Your task to perform on an android device: turn pop-ups off in chrome Image 0: 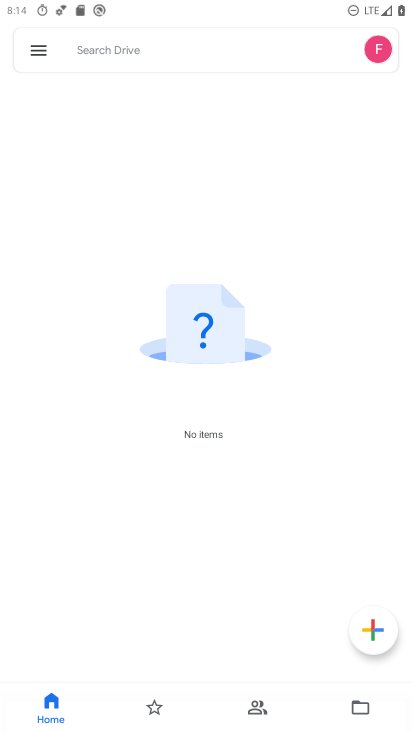
Step 0: press home button
Your task to perform on an android device: turn pop-ups off in chrome Image 1: 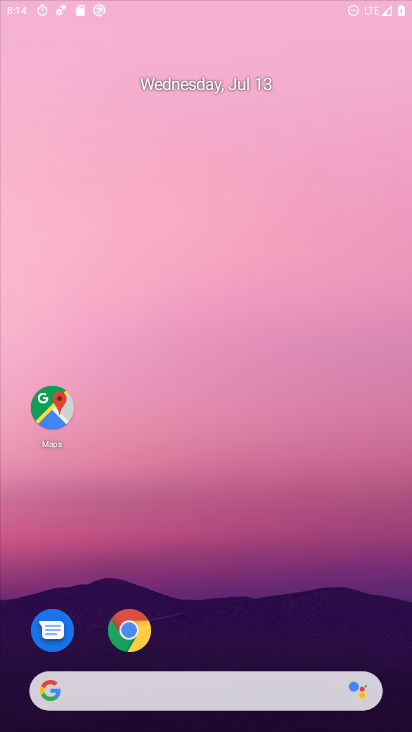
Step 1: drag from (394, 696) to (207, 4)
Your task to perform on an android device: turn pop-ups off in chrome Image 2: 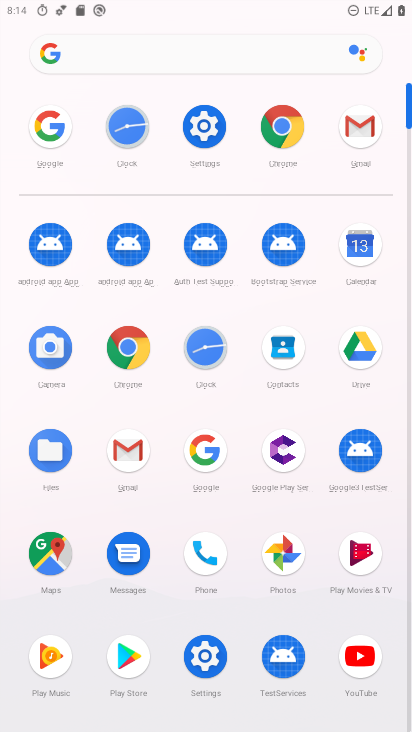
Step 2: click (283, 129)
Your task to perform on an android device: turn pop-ups off in chrome Image 3: 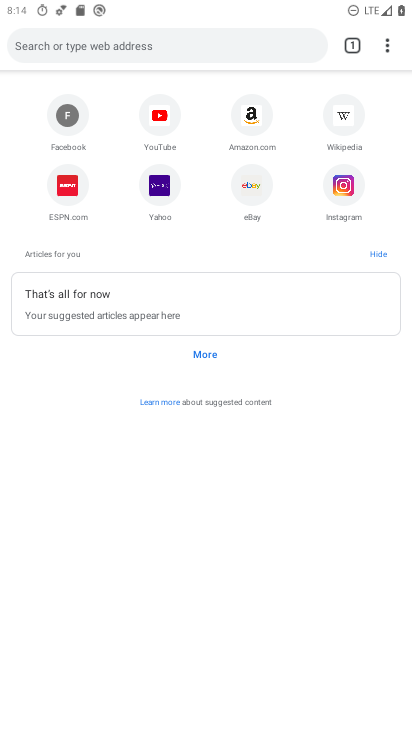
Step 3: click (386, 42)
Your task to perform on an android device: turn pop-ups off in chrome Image 4: 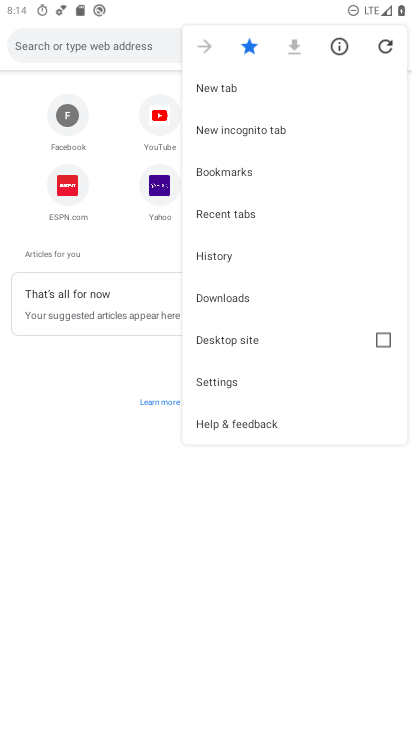
Step 4: click (220, 382)
Your task to perform on an android device: turn pop-ups off in chrome Image 5: 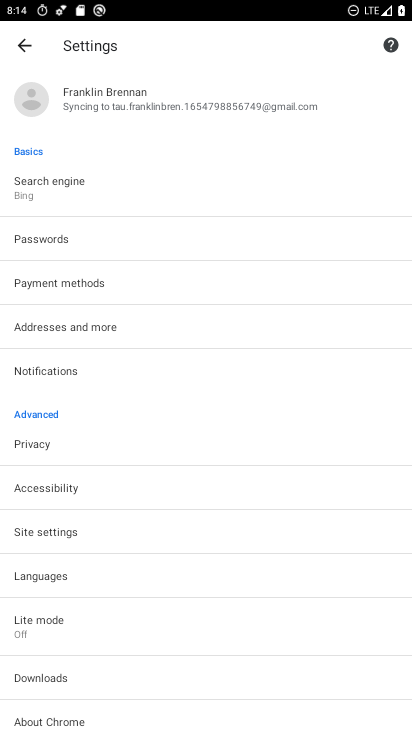
Step 5: click (89, 537)
Your task to perform on an android device: turn pop-ups off in chrome Image 6: 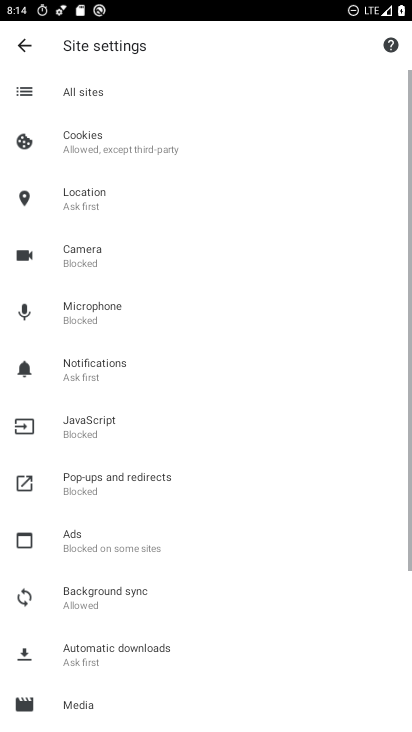
Step 6: click (91, 489)
Your task to perform on an android device: turn pop-ups off in chrome Image 7: 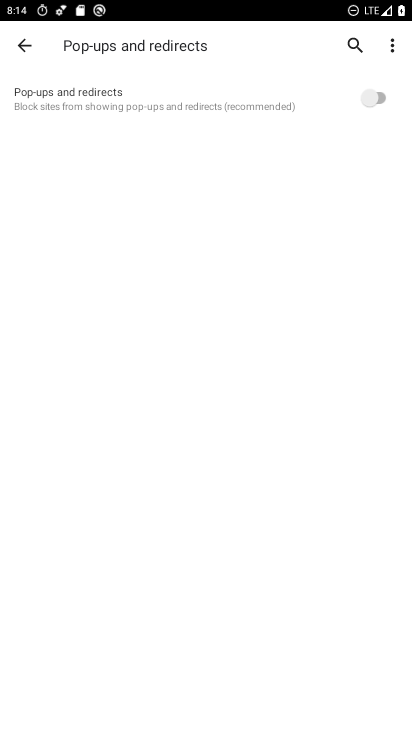
Step 7: task complete